Your task to perform on an android device: all mails in gmail Image 0: 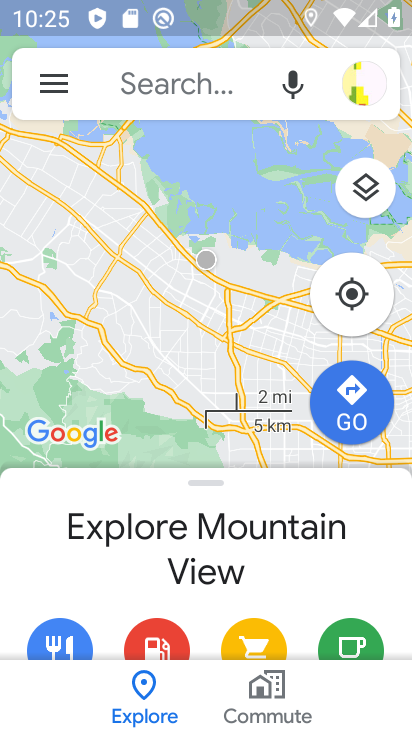
Step 0: press home button
Your task to perform on an android device: all mails in gmail Image 1: 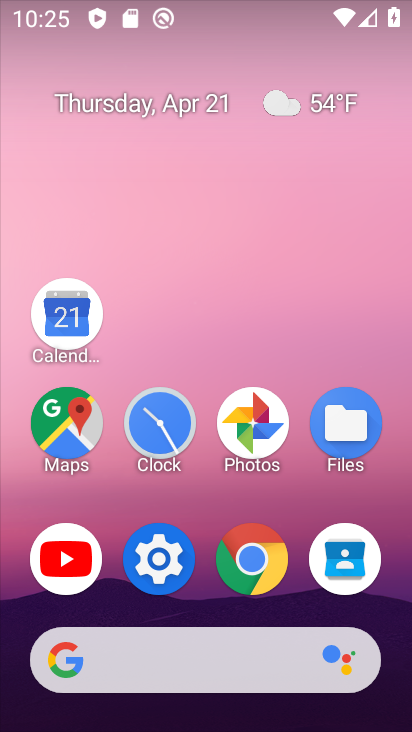
Step 1: drag from (202, 718) to (232, 23)
Your task to perform on an android device: all mails in gmail Image 2: 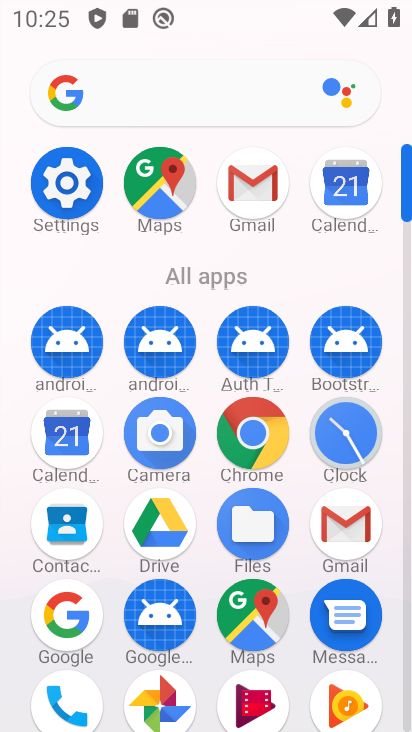
Step 2: click (261, 189)
Your task to perform on an android device: all mails in gmail Image 3: 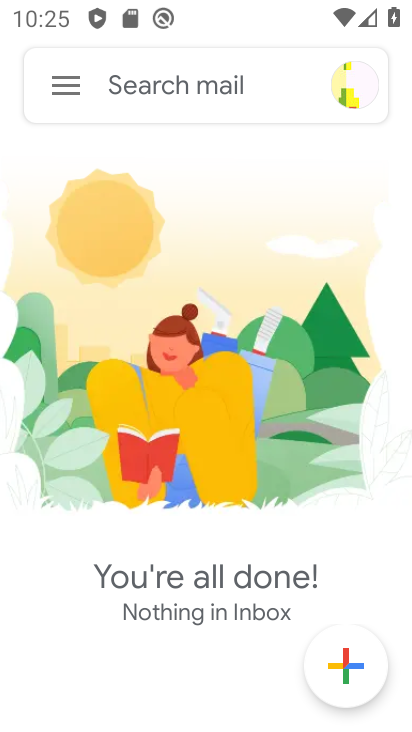
Step 3: click (62, 87)
Your task to perform on an android device: all mails in gmail Image 4: 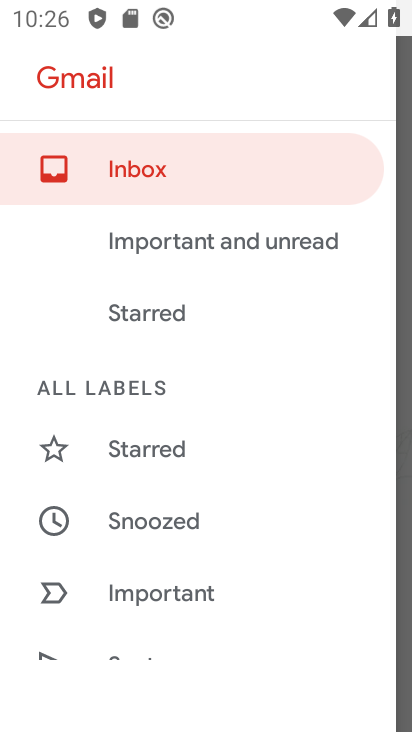
Step 4: drag from (248, 590) to (266, 286)
Your task to perform on an android device: all mails in gmail Image 5: 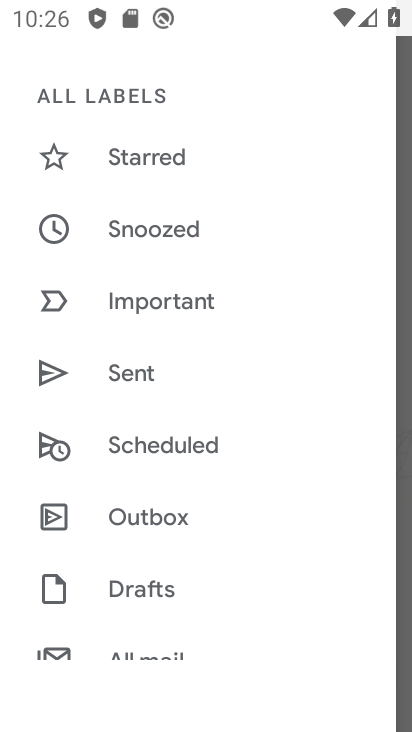
Step 5: drag from (260, 552) to (236, 117)
Your task to perform on an android device: all mails in gmail Image 6: 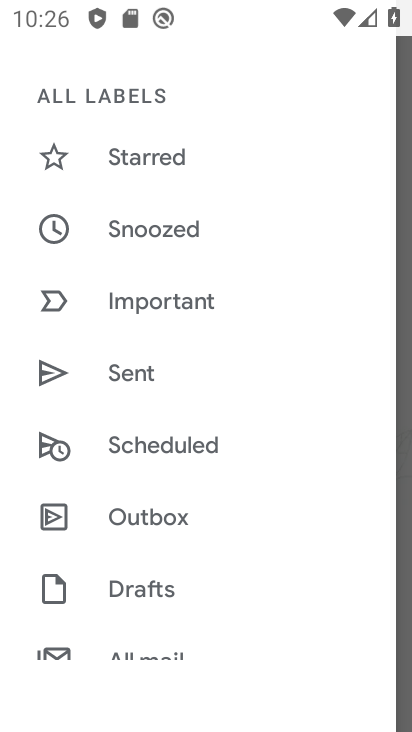
Step 6: drag from (229, 585) to (214, 321)
Your task to perform on an android device: all mails in gmail Image 7: 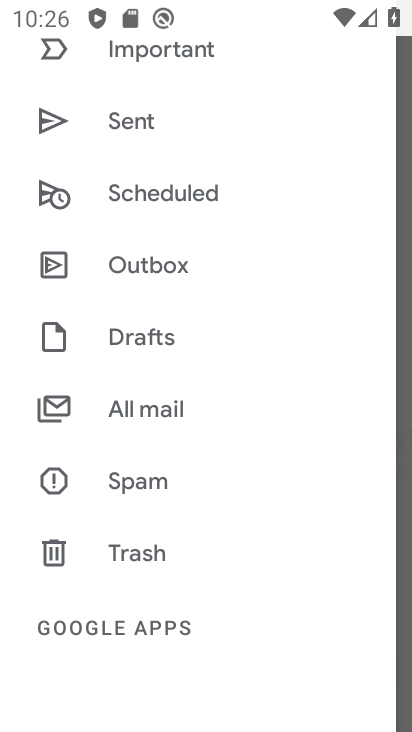
Step 7: click (130, 407)
Your task to perform on an android device: all mails in gmail Image 8: 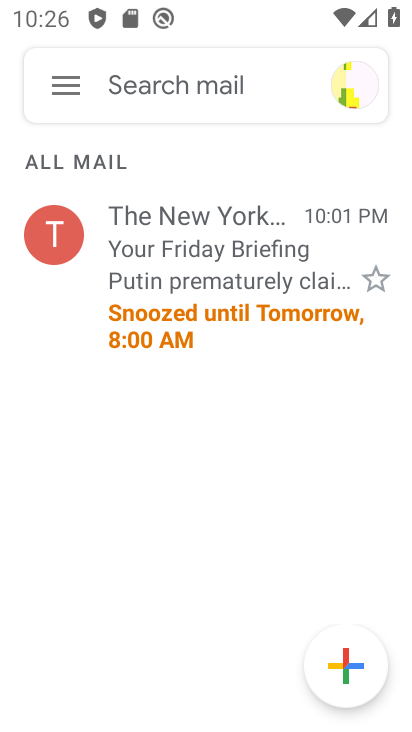
Step 8: task complete